Your task to perform on an android device: Do I have any events this weekend? Image 0: 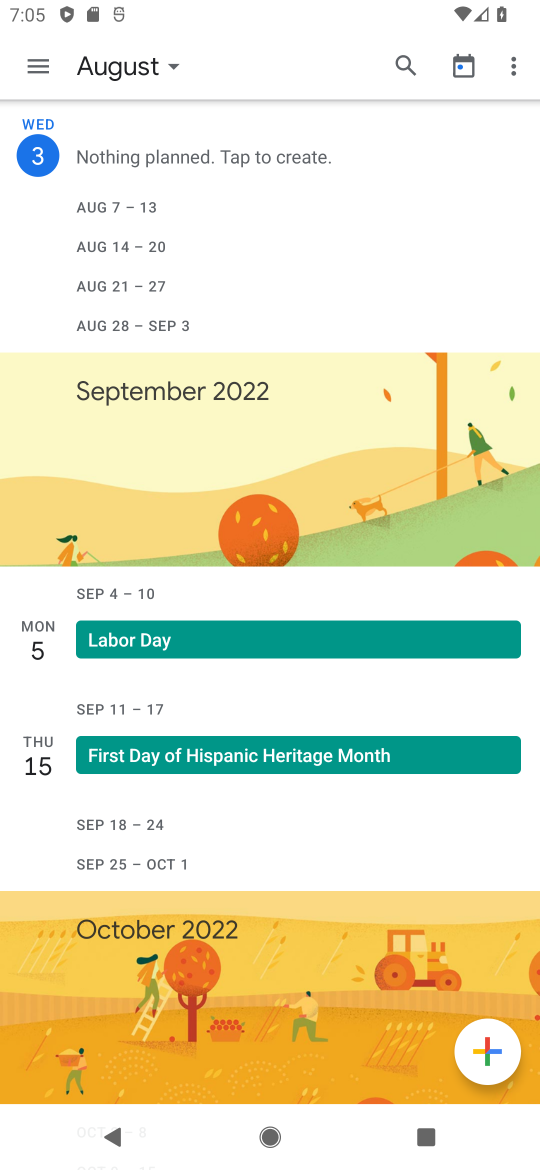
Step 0: click (123, 57)
Your task to perform on an android device: Do I have any events this weekend? Image 1: 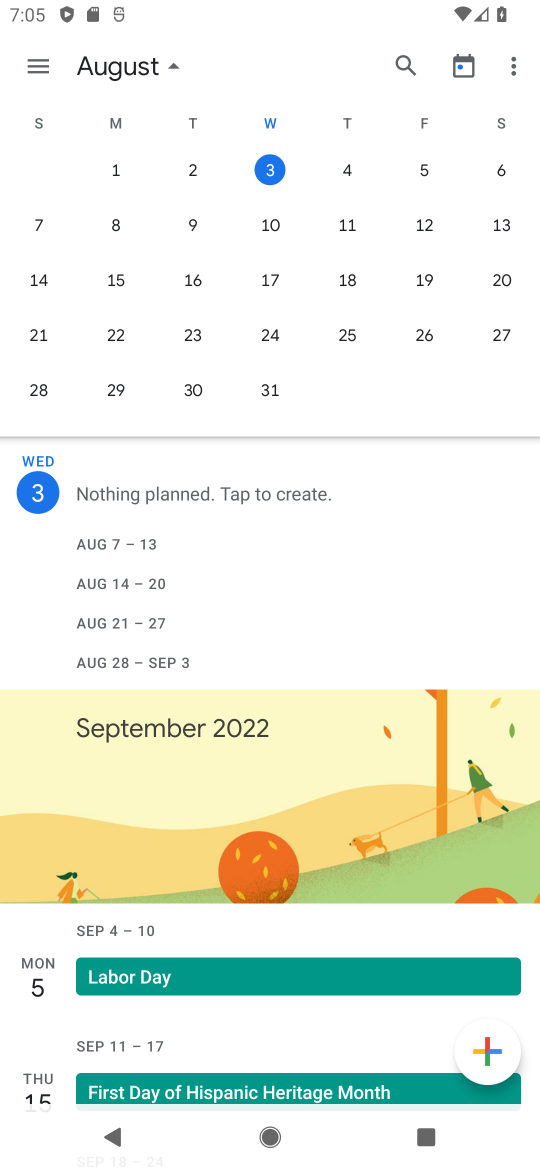
Step 1: click (510, 172)
Your task to perform on an android device: Do I have any events this weekend? Image 2: 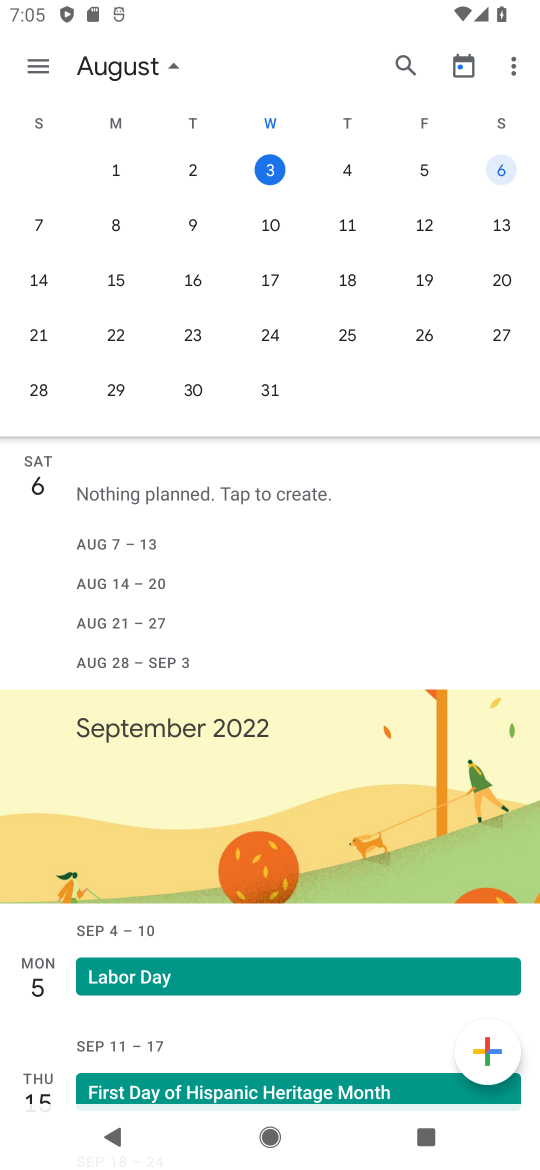
Step 2: task complete